Your task to perform on an android device: find which apps use the phone's location Image 0: 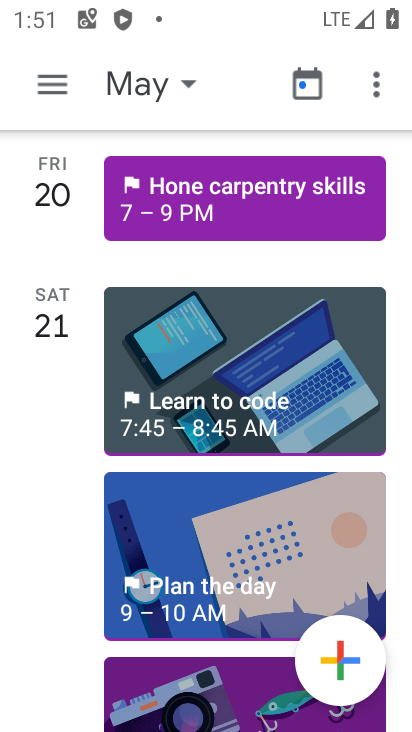
Step 0: press home button
Your task to perform on an android device: find which apps use the phone's location Image 1: 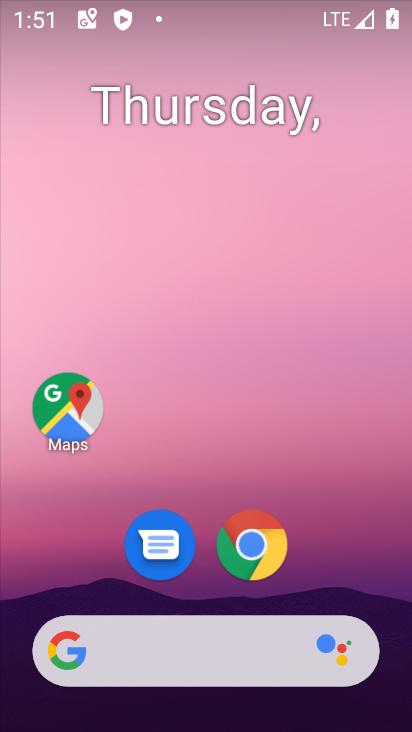
Step 1: drag from (252, 691) to (194, 45)
Your task to perform on an android device: find which apps use the phone's location Image 2: 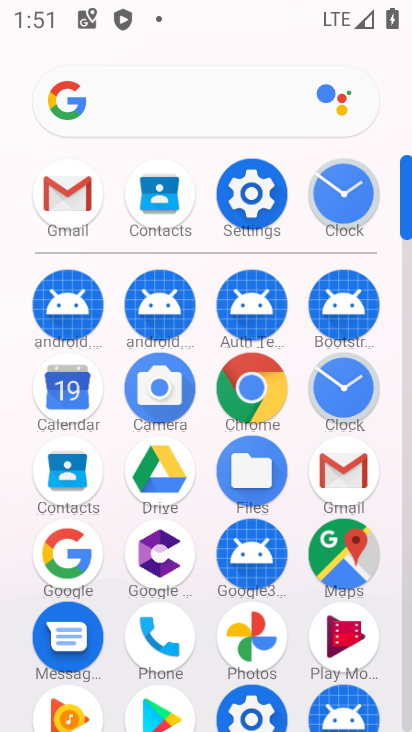
Step 2: click (267, 199)
Your task to perform on an android device: find which apps use the phone's location Image 3: 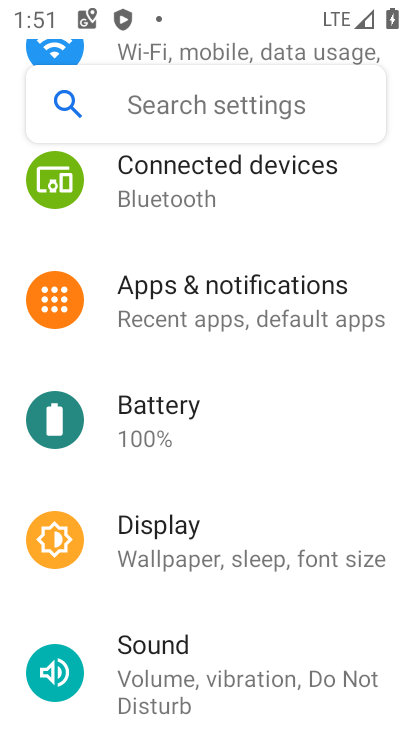
Step 3: drag from (223, 659) to (174, 250)
Your task to perform on an android device: find which apps use the phone's location Image 4: 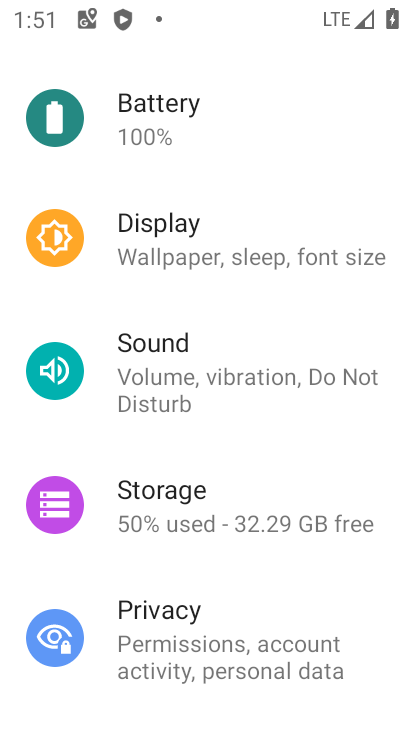
Step 4: drag from (242, 658) to (126, 152)
Your task to perform on an android device: find which apps use the phone's location Image 5: 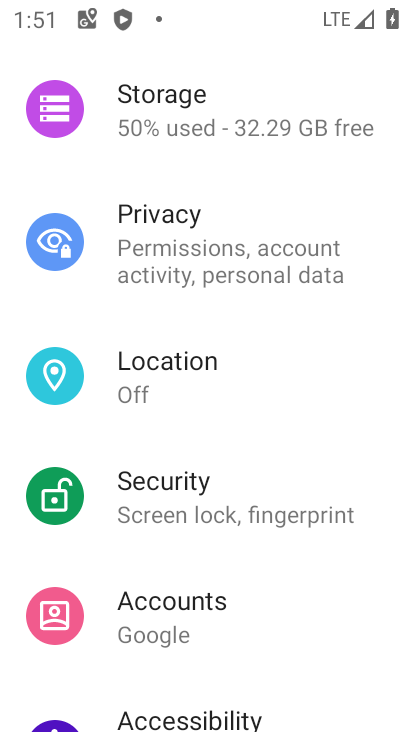
Step 5: click (184, 389)
Your task to perform on an android device: find which apps use the phone's location Image 6: 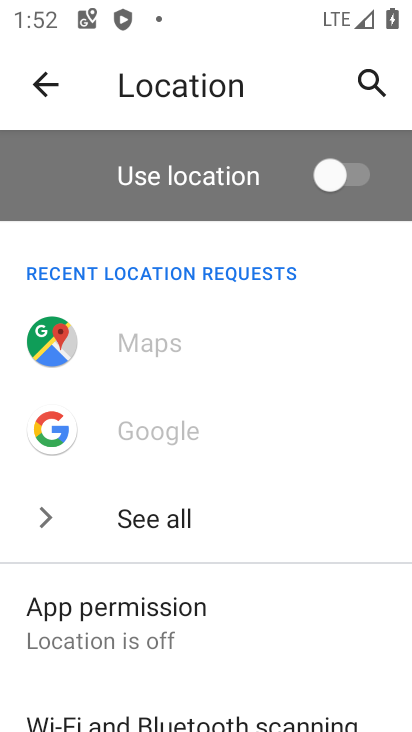
Step 6: click (157, 620)
Your task to perform on an android device: find which apps use the phone's location Image 7: 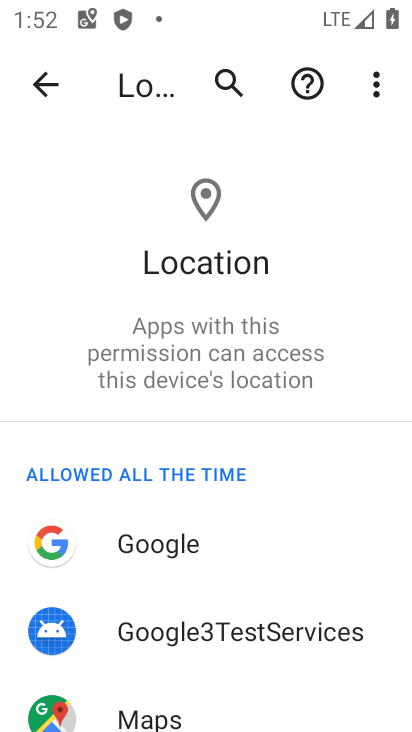
Step 7: task complete